Your task to perform on an android device: move an email to a new category in the gmail app Image 0: 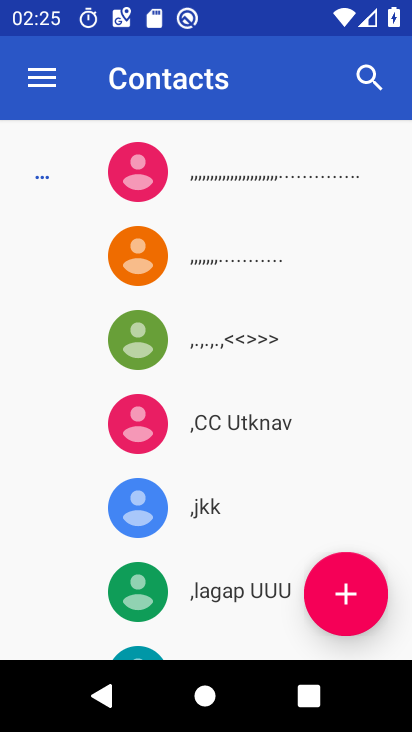
Step 0: press home button
Your task to perform on an android device: move an email to a new category in the gmail app Image 1: 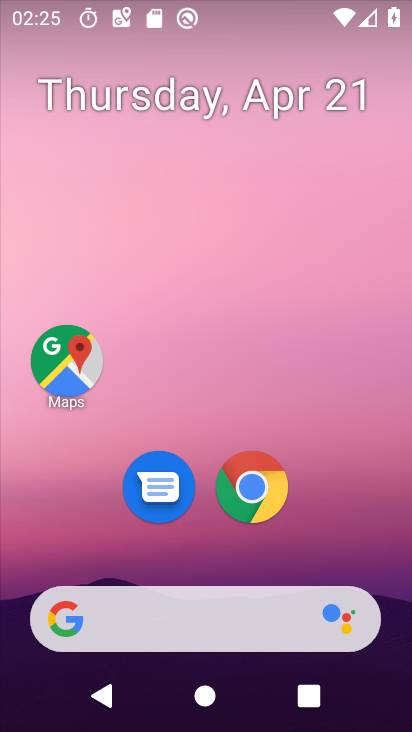
Step 1: drag from (220, 514) to (274, 152)
Your task to perform on an android device: move an email to a new category in the gmail app Image 2: 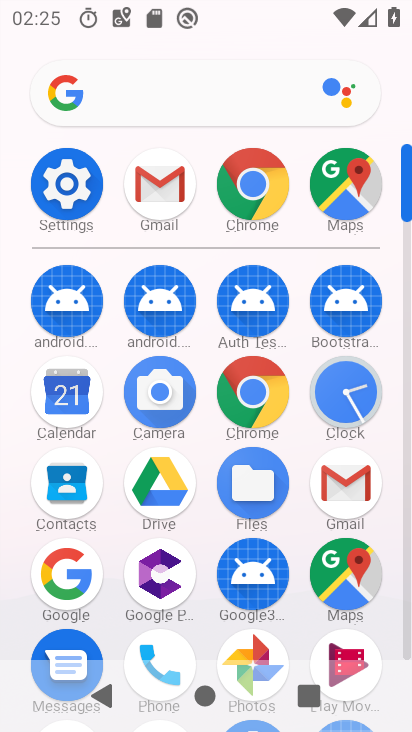
Step 2: click (348, 486)
Your task to perform on an android device: move an email to a new category in the gmail app Image 3: 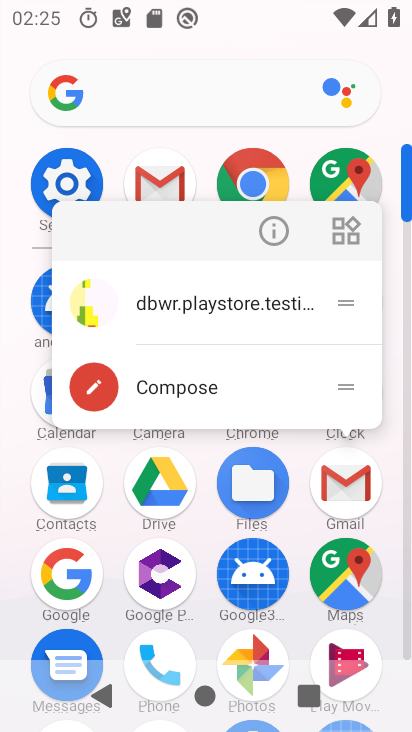
Step 3: click (273, 219)
Your task to perform on an android device: move an email to a new category in the gmail app Image 4: 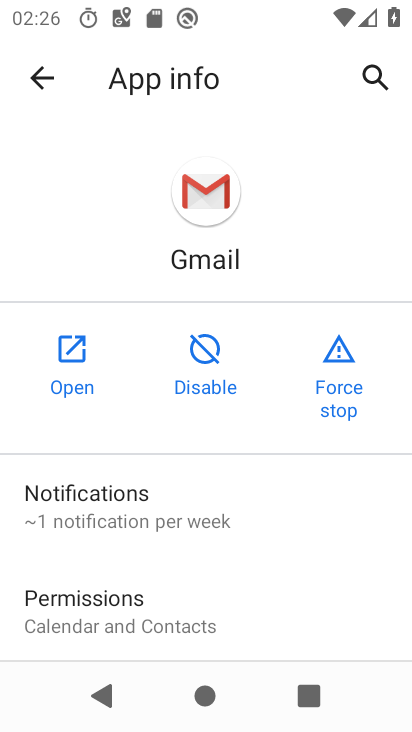
Step 4: click (80, 359)
Your task to perform on an android device: move an email to a new category in the gmail app Image 5: 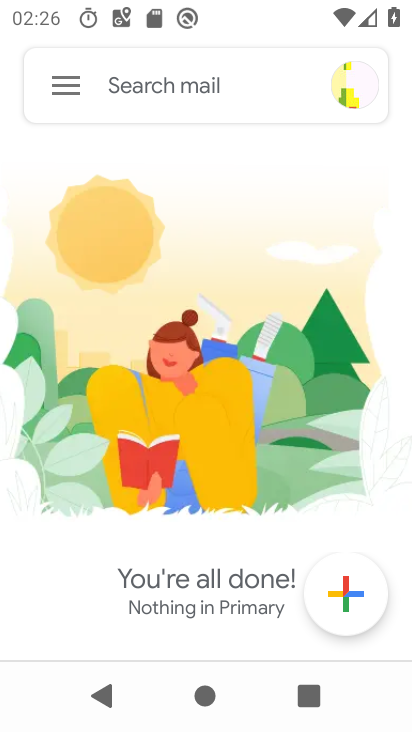
Step 5: drag from (234, 549) to (290, 177)
Your task to perform on an android device: move an email to a new category in the gmail app Image 6: 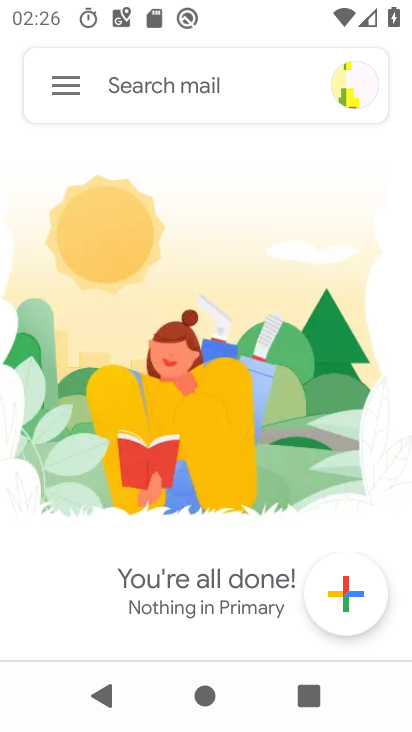
Step 6: click (69, 87)
Your task to perform on an android device: move an email to a new category in the gmail app Image 7: 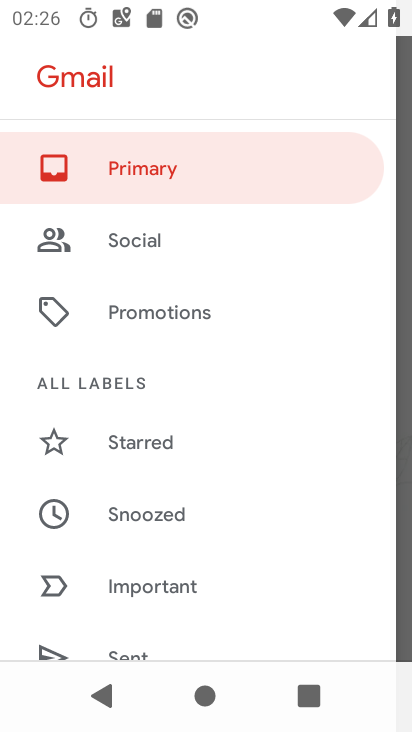
Step 7: drag from (209, 562) to (258, 95)
Your task to perform on an android device: move an email to a new category in the gmail app Image 8: 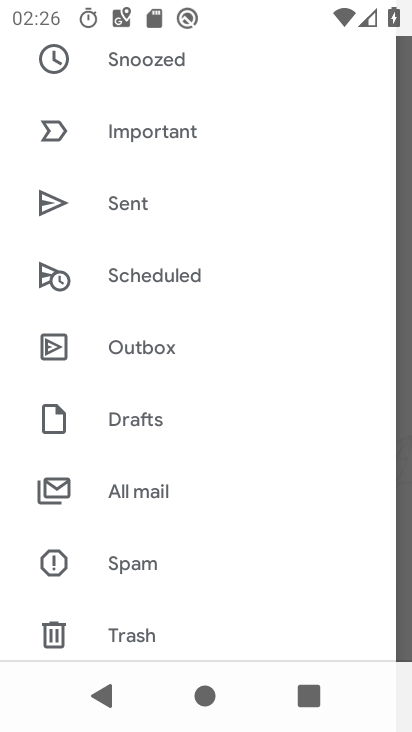
Step 8: drag from (277, 221) to (297, 519)
Your task to perform on an android device: move an email to a new category in the gmail app Image 9: 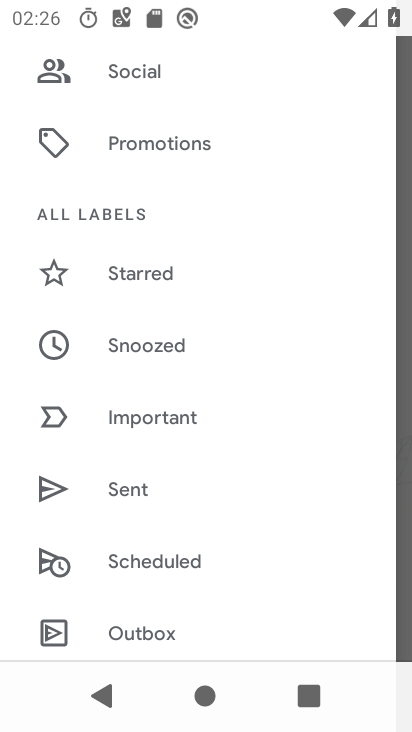
Step 9: drag from (193, 259) to (313, 715)
Your task to perform on an android device: move an email to a new category in the gmail app Image 10: 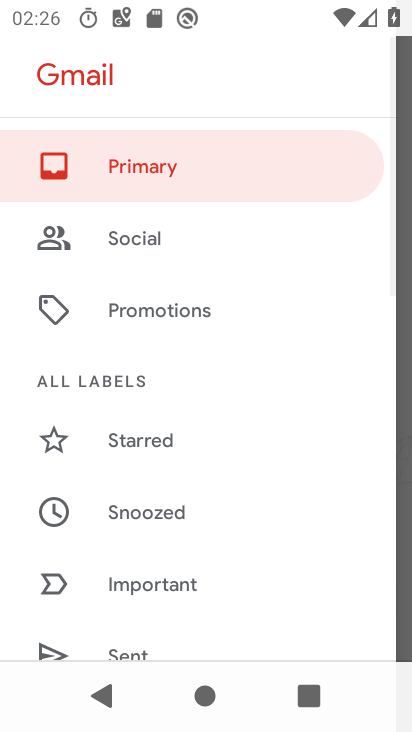
Step 10: click (182, 192)
Your task to perform on an android device: move an email to a new category in the gmail app Image 11: 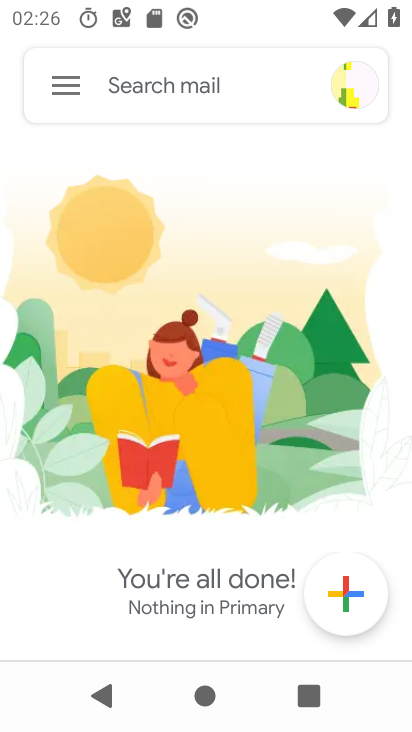
Step 11: task complete